Your task to perform on an android device: turn on sleep mode Image 0: 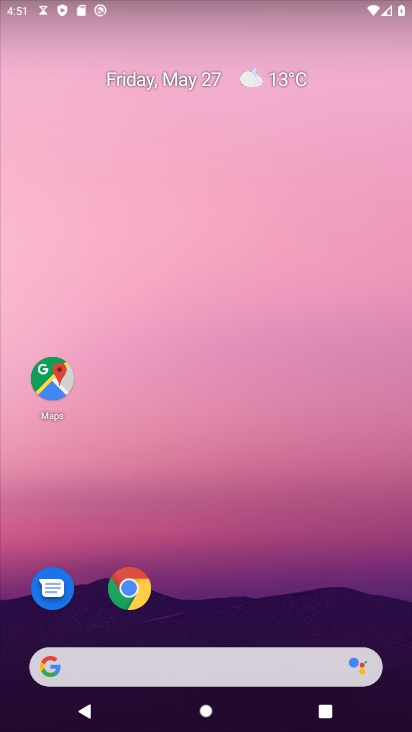
Step 0: drag from (276, 593) to (297, 7)
Your task to perform on an android device: turn on sleep mode Image 1: 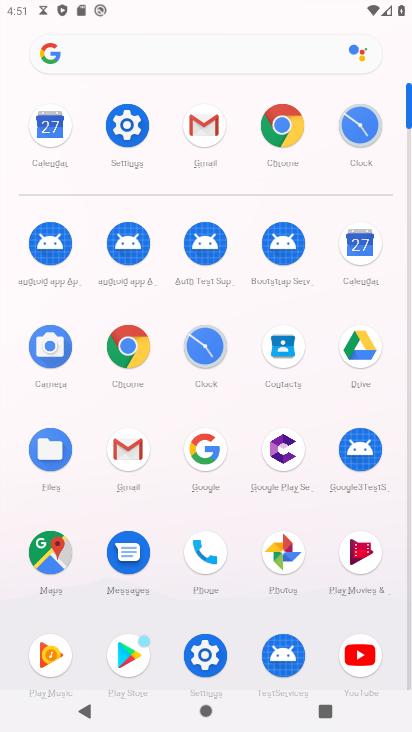
Step 1: click (112, 120)
Your task to perform on an android device: turn on sleep mode Image 2: 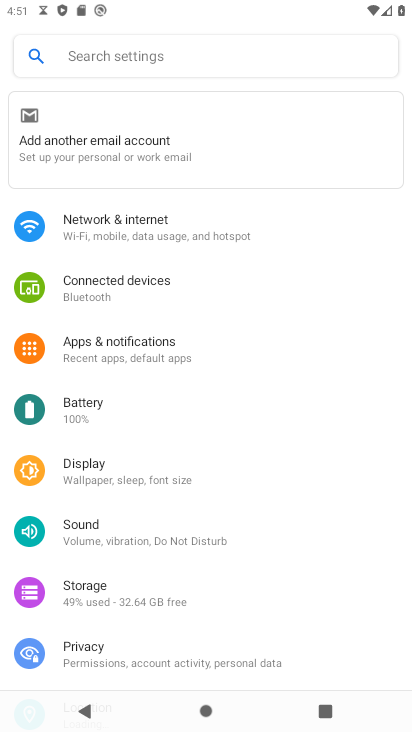
Step 2: click (131, 49)
Your task to perform on an android device: turn on sleep mode Image 3: 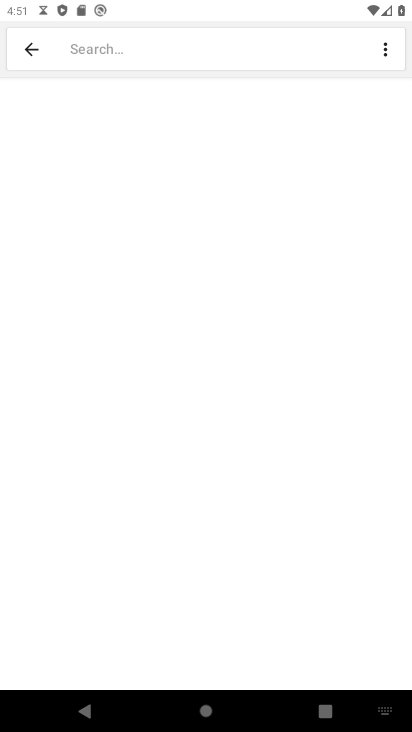
Step 3: type "sleep mode"
Your task to perform on an android device: turn on sleep mode Image 4: 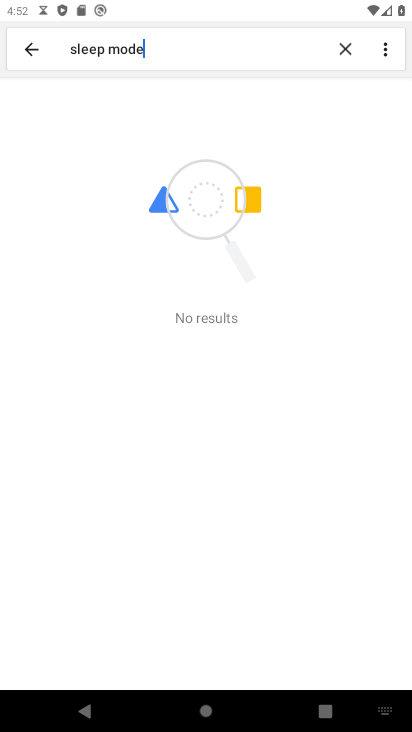
Step 4: task complete